Your task to perform on an android device: check battery use Image 0: 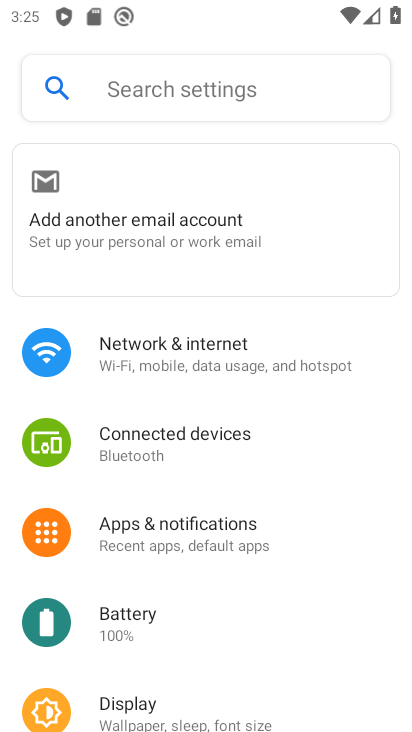
Step 0: click (118, 624)
Your task to perform on an android device: check battery use Image 1: 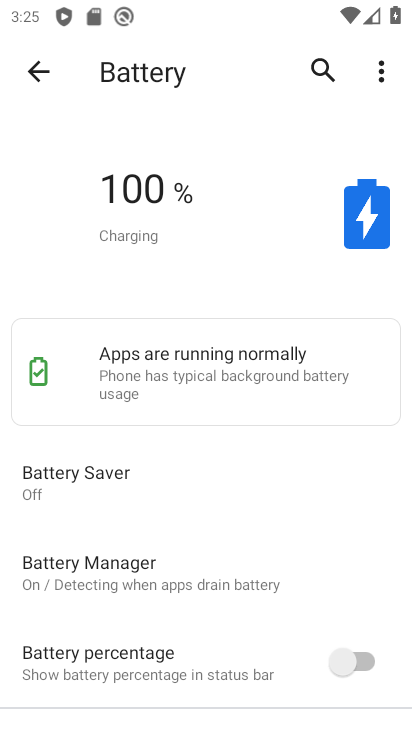
Step 1: click (385, 77)
Your task to perform on an android device: check battery use Image 2: 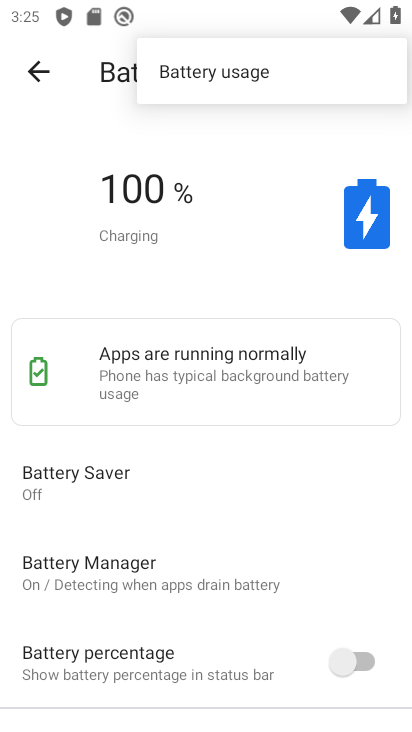
Step 2: click (185, 72)
Your task to perform on an android device: check battery use Image 3: 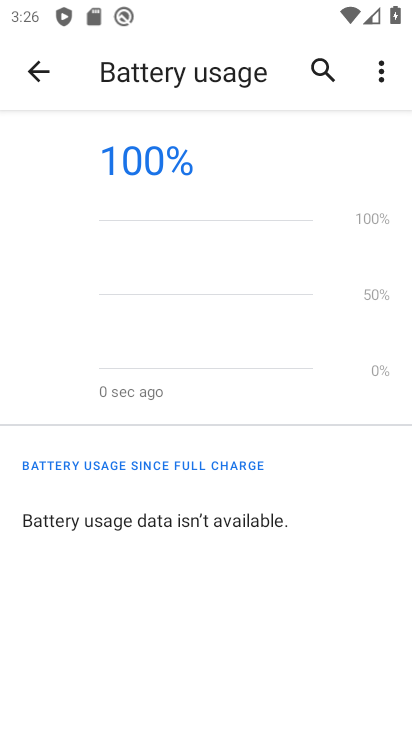
Step 3: task complete